Your task to perform on an android device: turn off data saver in the chrome app Image 0: 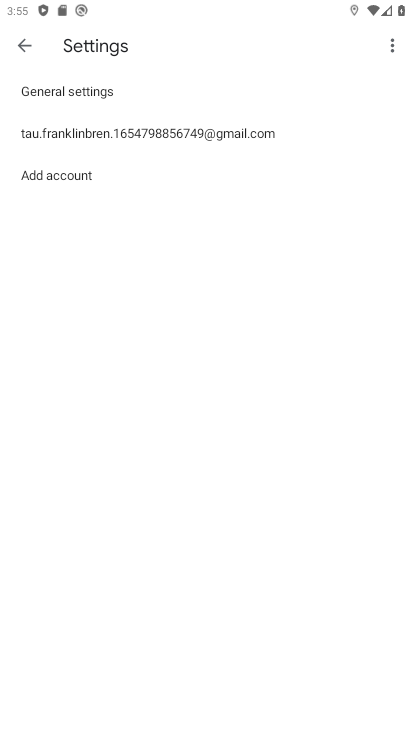
Step 0: press home button
Your task to perform on an android device: turn off data saver in the chrome app Image 1: 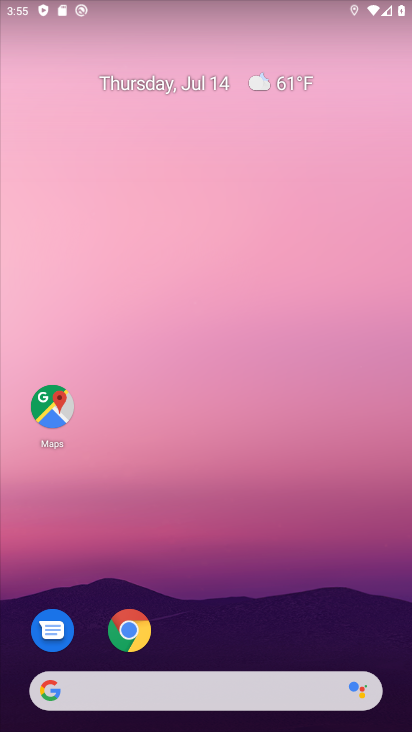
Step 1: drag from (288, 634) to (153, 83)
Your task to perform on an android device: turn off data saver in the chrome app Image 2: 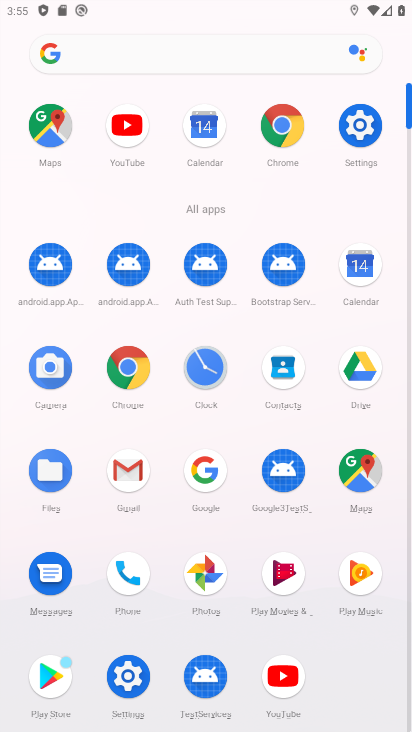
Step 2: click (281, 134)
Your task to perform on an android device: turn off data saver in the chrome app Image 3: 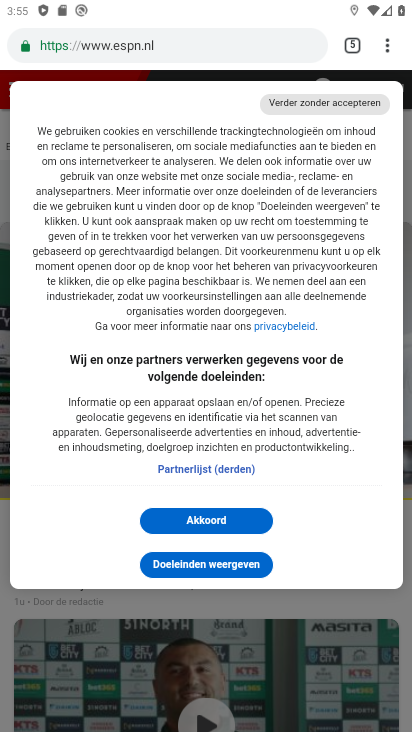
Step 3: click (394, 45)
Your task to perform on an android device: turn off data saver in the chrome app Image 4: 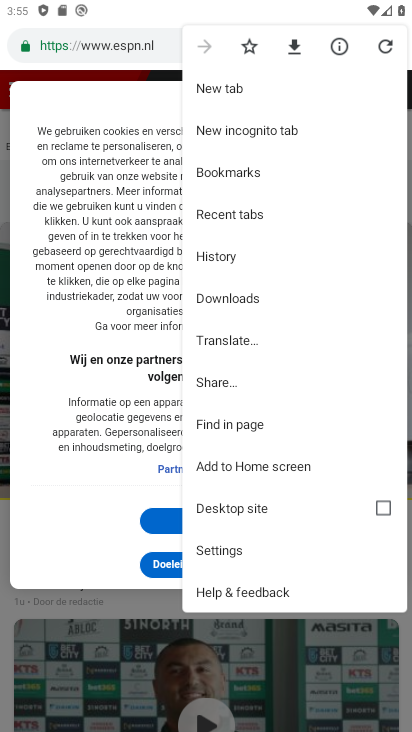
Step 4: click (247, 552)
Your task to perform on an android device: turn off data saver in the chrome app Image 5: 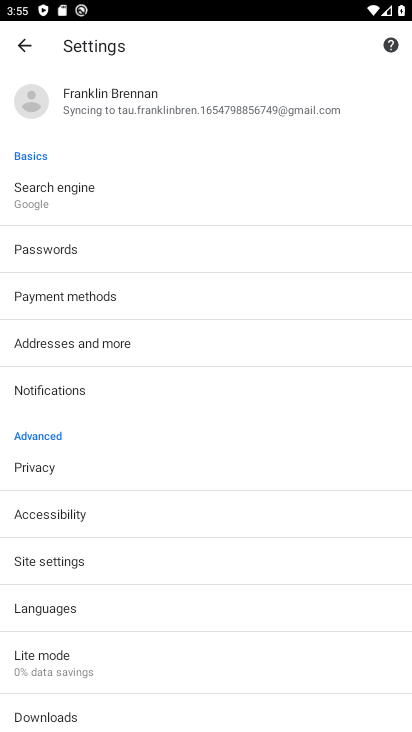
Step 5: click (151, 651)
Your task to perform on an android device: turn off data saver in the chrome app Image 6: 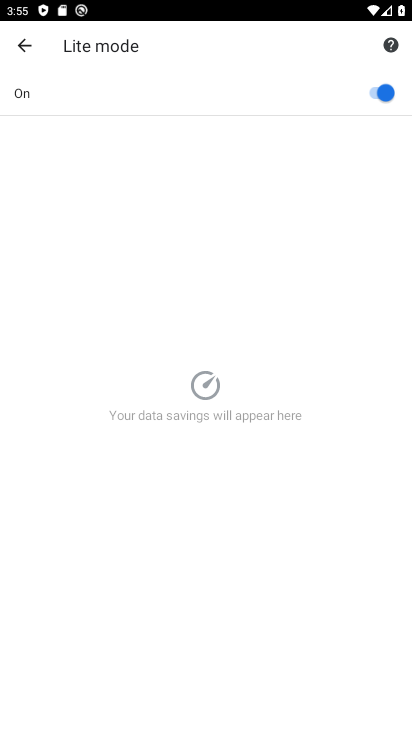
Step 6: click (378, 94)
Your task to perform on an android device: turn off data saver in the chrome app Image 7: 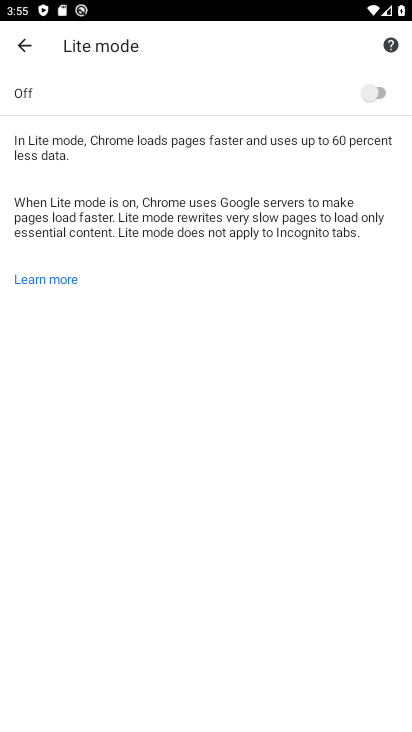
Step 7: task complete